Your task to perform on an android device: set the stopwatch Image 0: 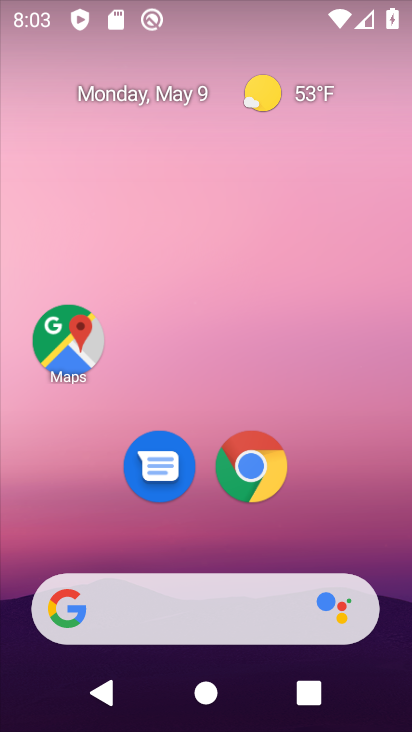
Step 0: drag from (325, 543) to (257, 89)
Your task to perform on an android device: set the stopwatch Image 1: 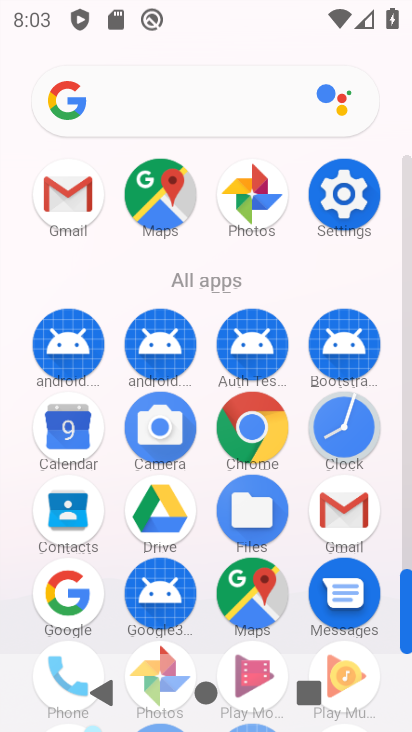
Step 1: click (346, 426)
Your task to perform on an android device: set the stopwatch Image 2: 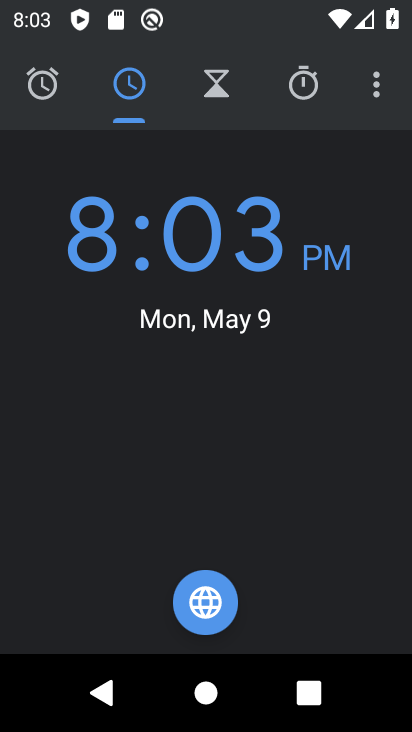
Step 2: click (303, 87)
Your task to perform on an android device: set the stopwatch Image 3: 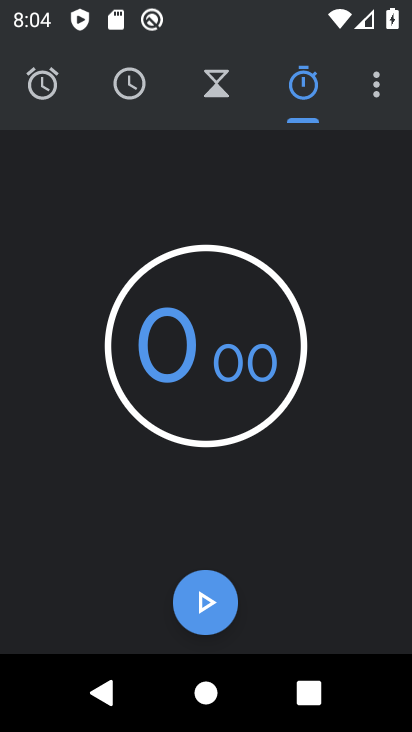
Step 3: click (204, 600)
Your task to perform on an android device: set the stopwatch Image 4: 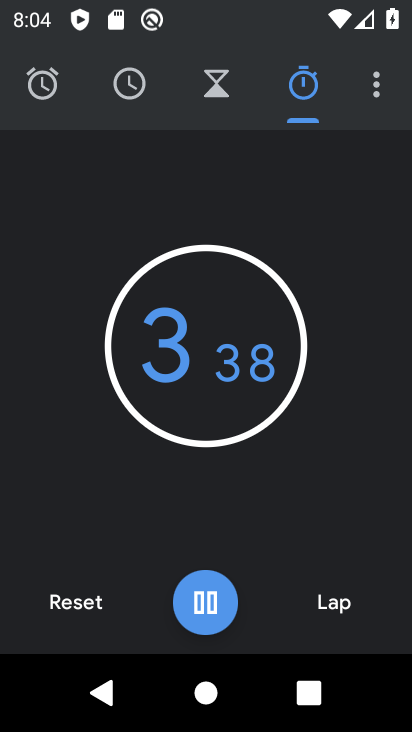
Step 4: click (204, 601)
Your task to perform on an android device: set the stopwatch Image 5: 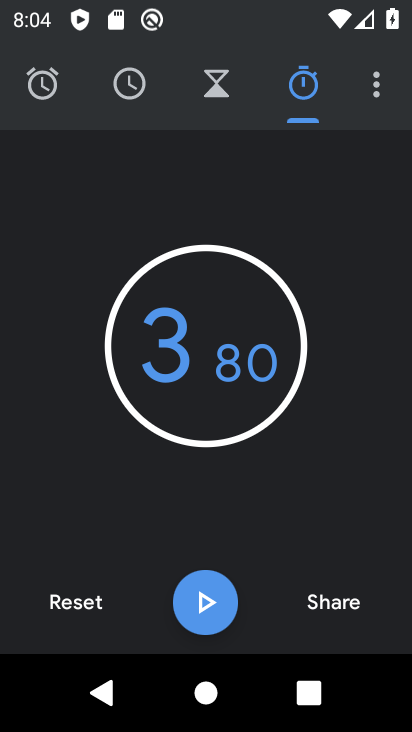
Step 5: task complete